Your task to perform on an android device: Open notification settings Image 0: 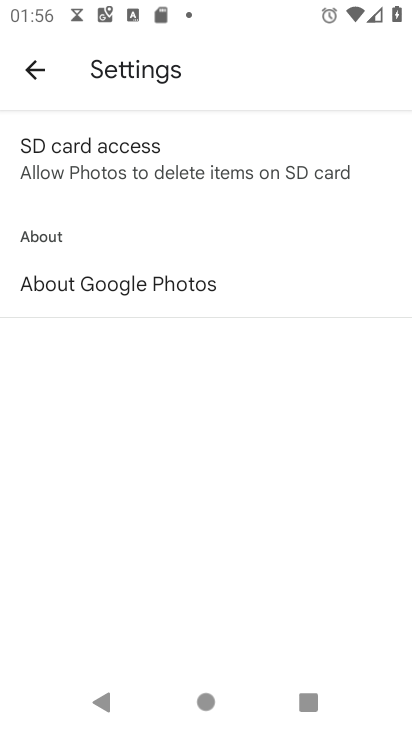
Step 0: click (236, 179)
Your task to perform on an android device: Open notification settings Image 1: 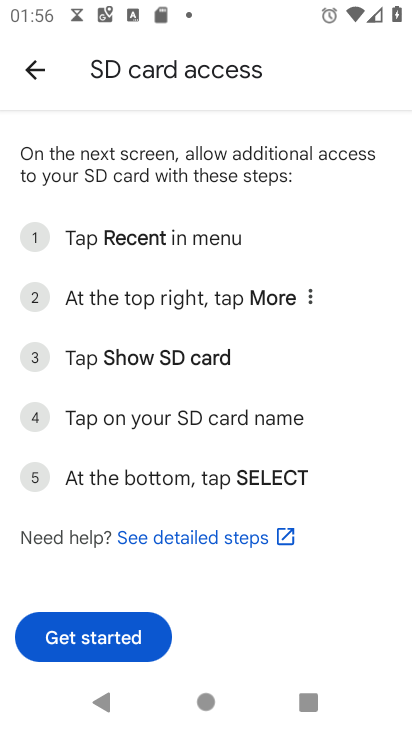
Step 1: press home button
Your task to perform on an android device: Open notification settings Image 2: 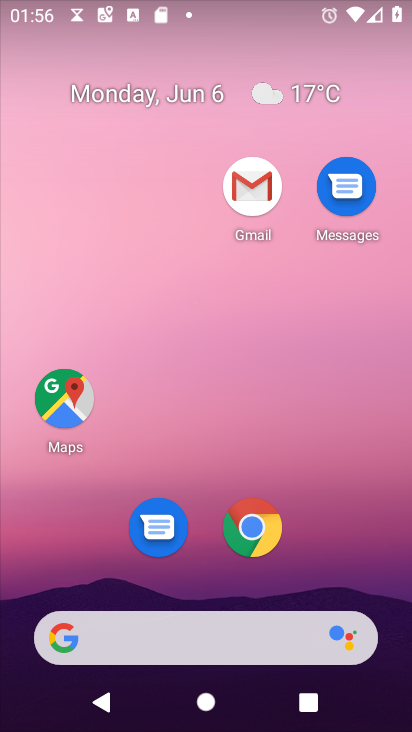
Step 2: click (244, 213)
Your task to perform on an android device: Open notification settings Image 3: 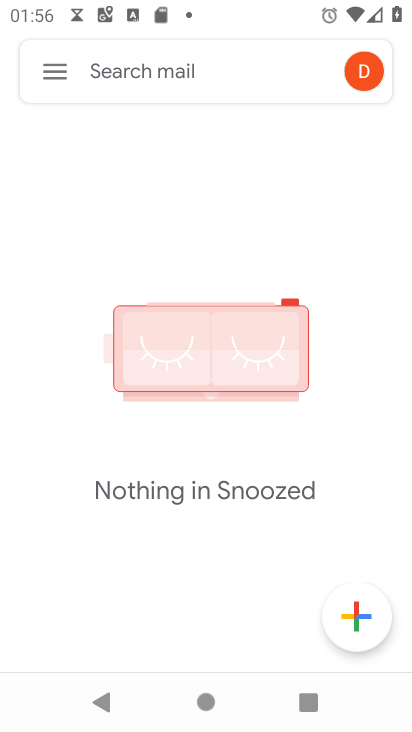
Step 3: click (52, 62)
Your task to perform on an android device: Open notification settings Image 4: 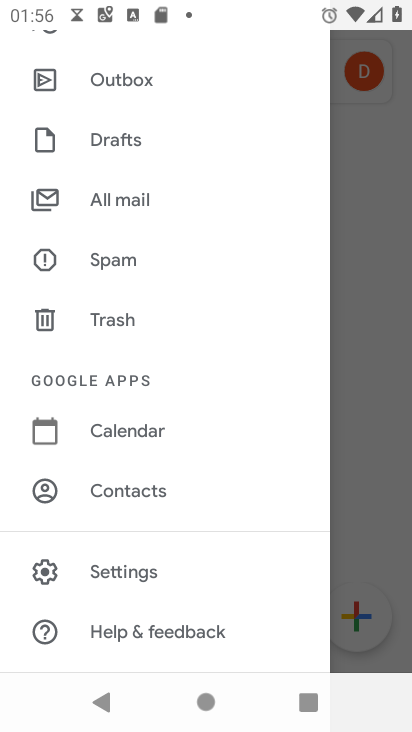
Step 4: press home button
Your task to perform on an android device: Open notification settings Image 5: 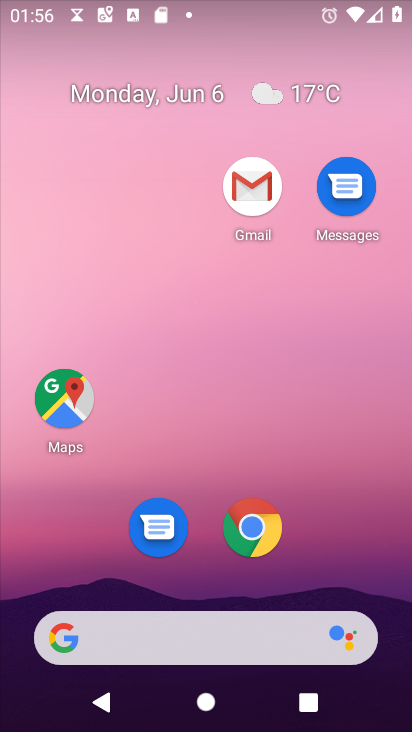
Step 5: drag from (301, 572) to (264, 109)
Your task to perform on an android device: Open notification settings Image 6: 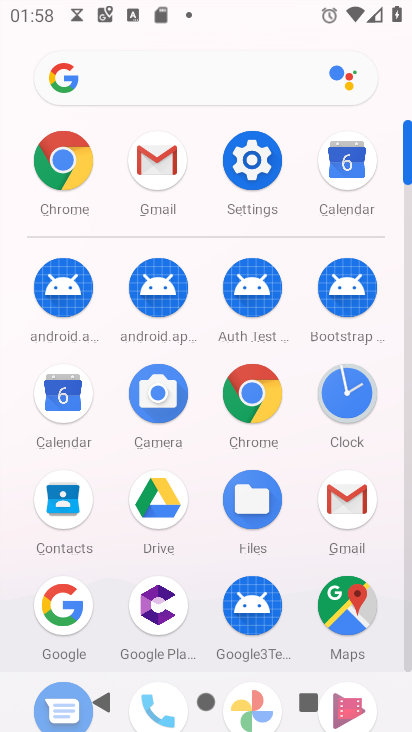
Step 6: click (254, 697)
Your task to perform on an android device: Open notification settings Image 7: 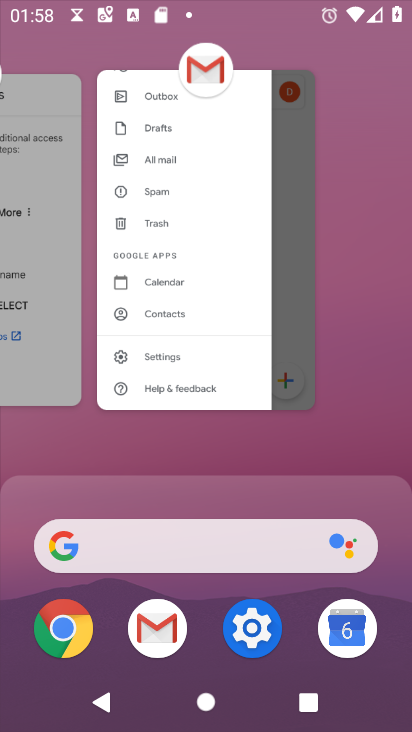
Step 7: click (238, 621)
Your task to perform on an android device: Open notification settings Image 8: 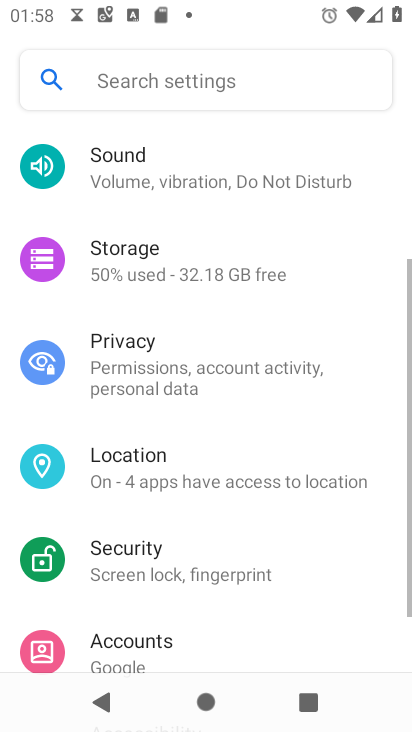
Step 8: click (238, 621)
Your task to perform on an android device: Open notification settings Image 9: 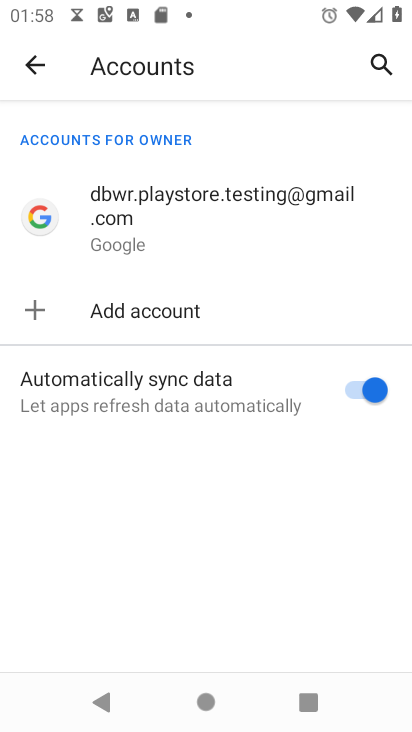
Step 9: click (33, 51)
Your task to perform on an android device: Open notification settings Image 10: 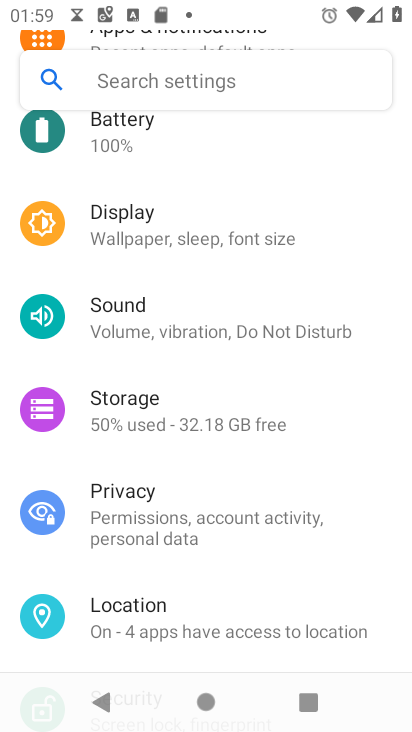
Step 10: drag from (154, 175) to (96, 525)
Your task to perform on an android device: Open notification settings Image 11: 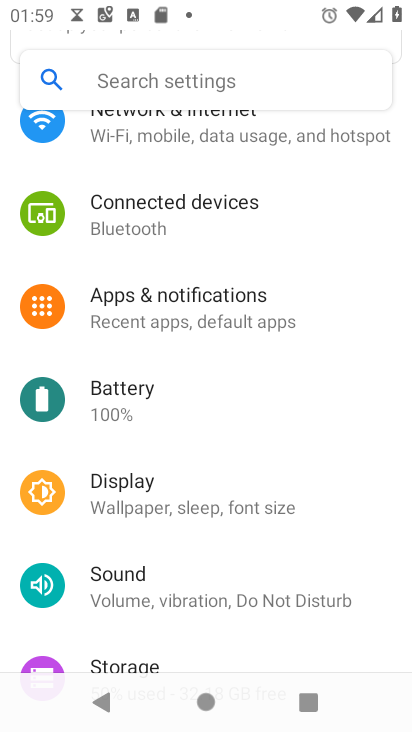
Step 11: click (127, 309)
Your task to perform on an android device: Open notification settings Image 12: 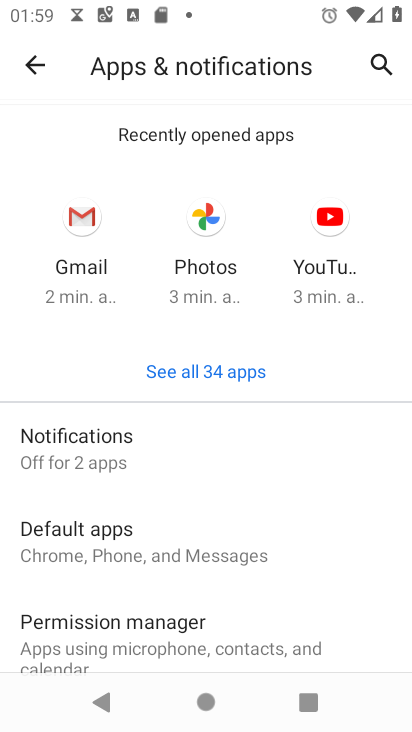
Step 12: click (98, 460)
Your task to perform on an android device: Open notification settings Image 13: 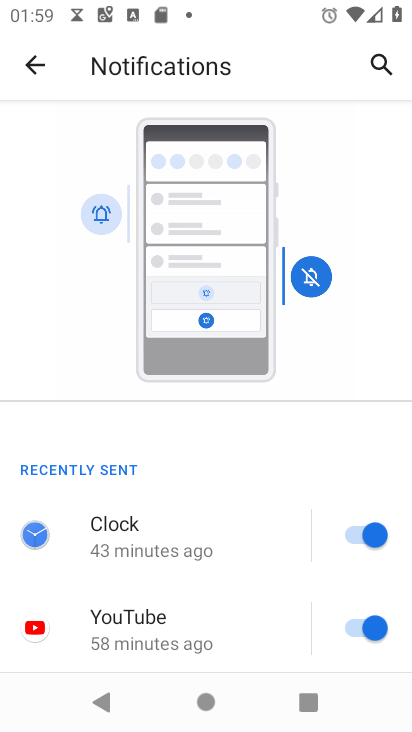
Step 13: task complete